Your task to perform on an android device: open sync settings in chrome Image 0: 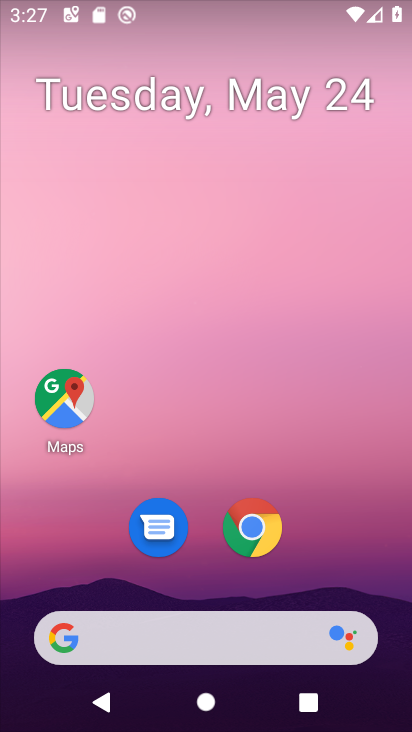
Step 0: click (255, 532)
Your task to perform on an android device: open sync settings in chrome Image 1: 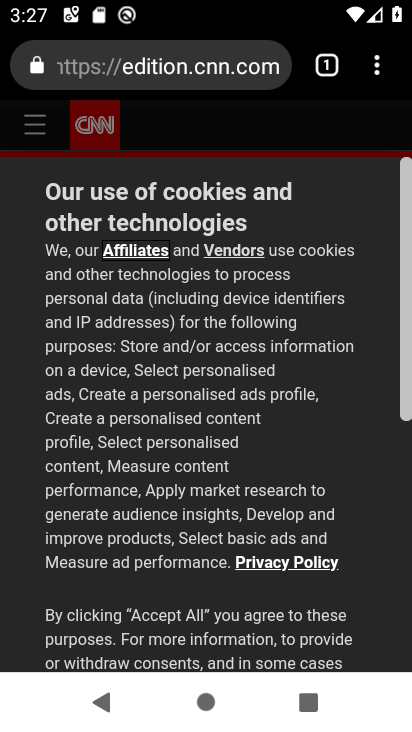
Step 1: click (381, 63)
Your task to perform on an android device: open sync settings in chrome Image 2: 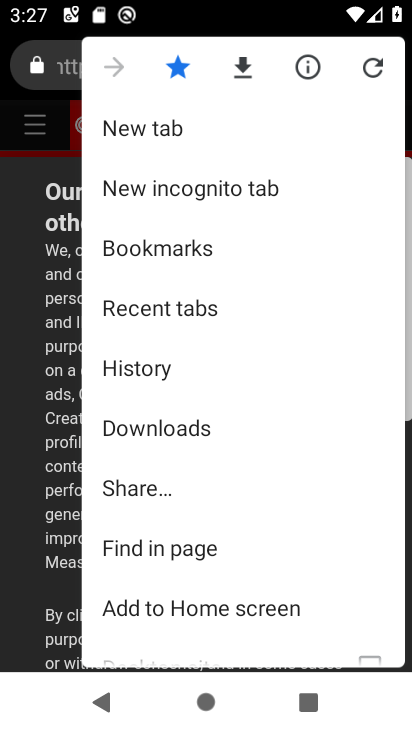
Step 2: drag from (223, 517) to (250, 128)
Your task to perform on an android device: open sync settings in chrome Image 3: 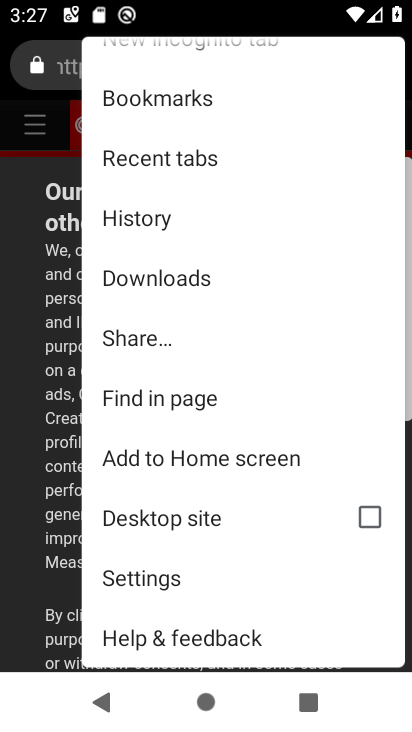
Step 3: click (140, 581)
Your task to perform on an android device: open sync settings in chrome Image 4: 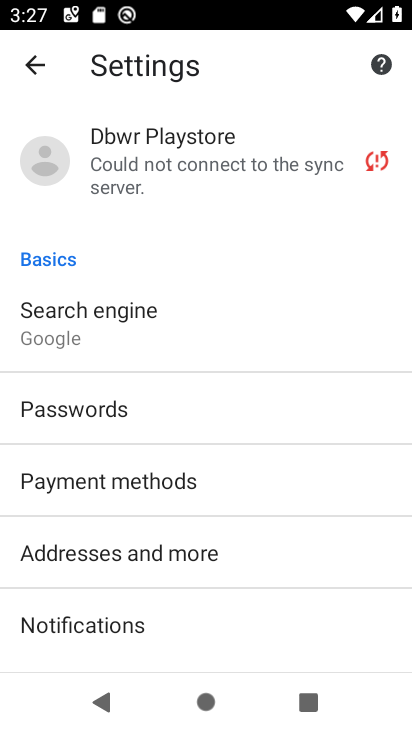
Step 4: drag from (204, 524) to (231, 173)
Your task to perform on an android device: open sync settings in chrome Image 5: 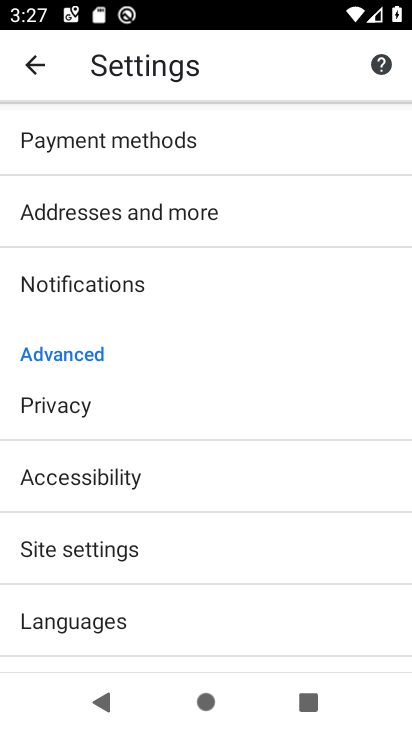
Step 5: drag from (352, 220) to (334, 531)
Your task to perform on an android device: open sync settings in chrome Image 6: 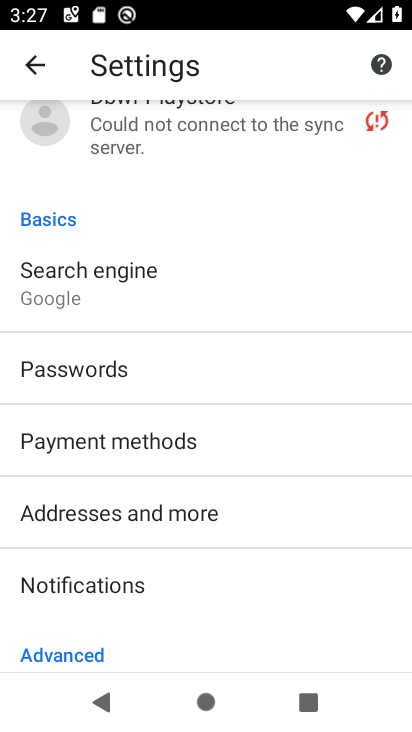
Step 6: drag from (264, 200) to (276, 440)
Your task to perform on an android device: open sync settings in chrome Image 7: 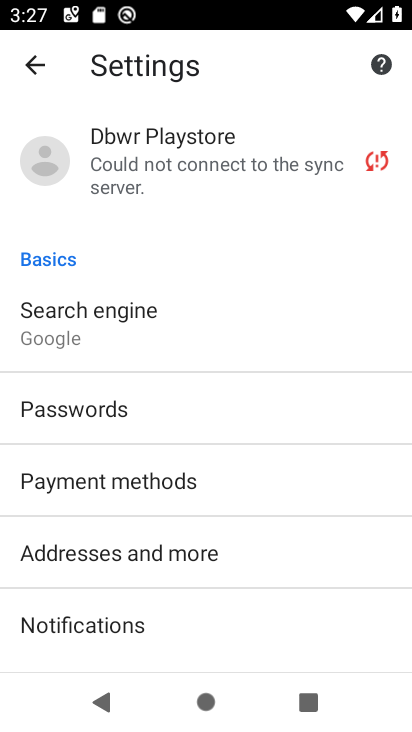
Step 7: click (159, 162)
Your task to perform on an android device: open sync settings in chrome Image 8: 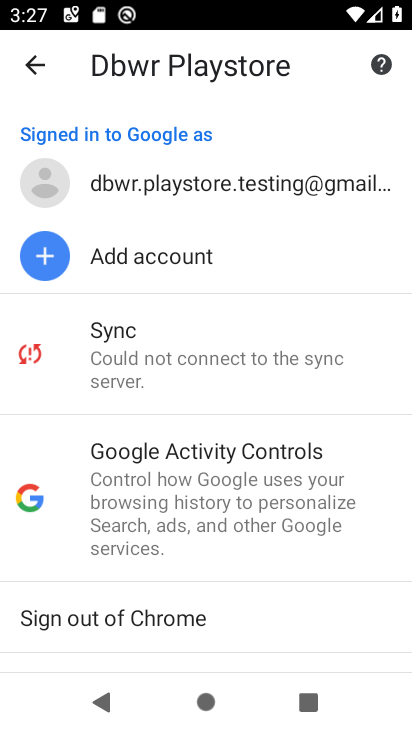
Step 8: click (115, 355)
Your task to perform on an android device: open sync settings in chrome Image 9: 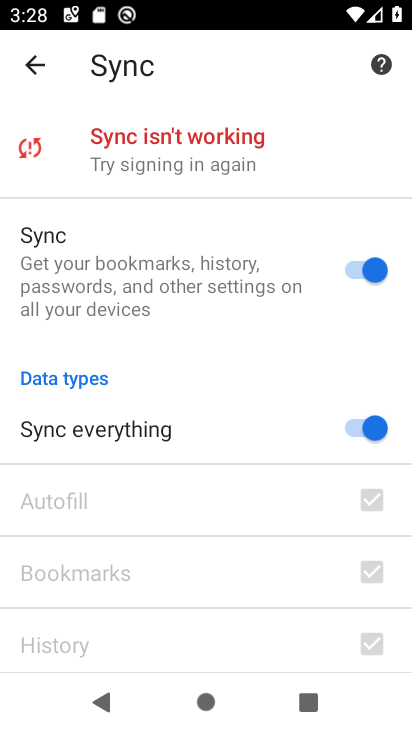
Step 9: task complete